Your task to perform on an android device: open wifi settings Image 0: 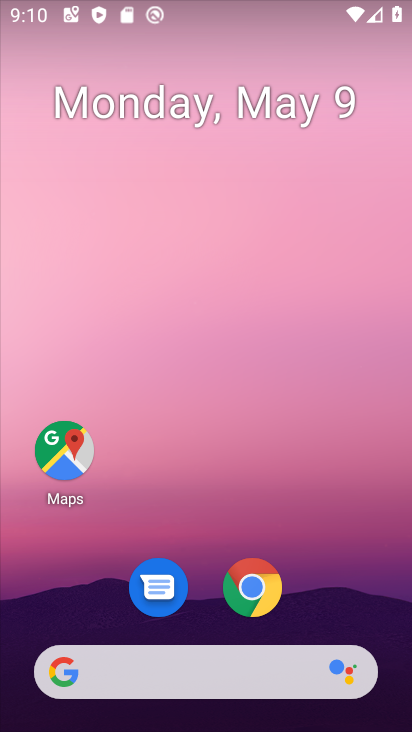
Step 0: drag from (132, 7) to (260, 322)
Your task to perform on an android device: open wifi settings Image 1: 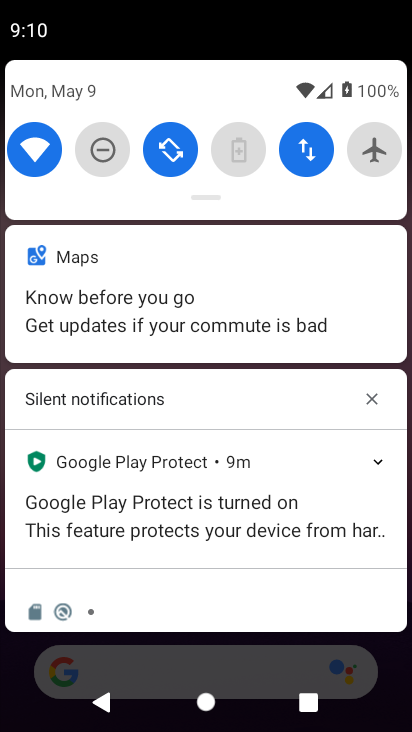
Step 1: click (27, 161)
Your task to perform on an android device: open wifi settings Image 2: 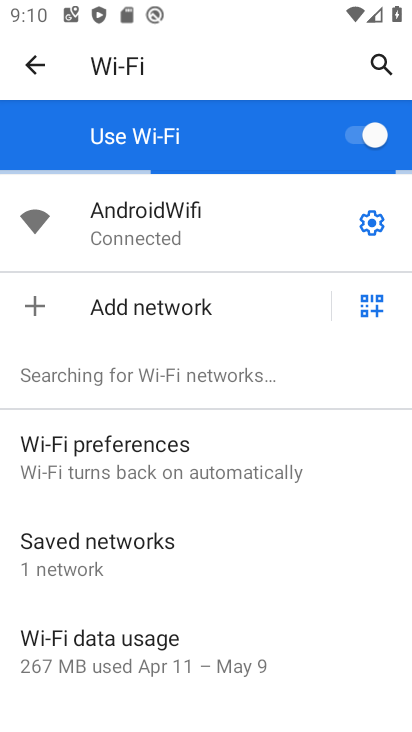
Step 2: task complete